Your task to perform on an android device: change the upload size in google photos Image 0: 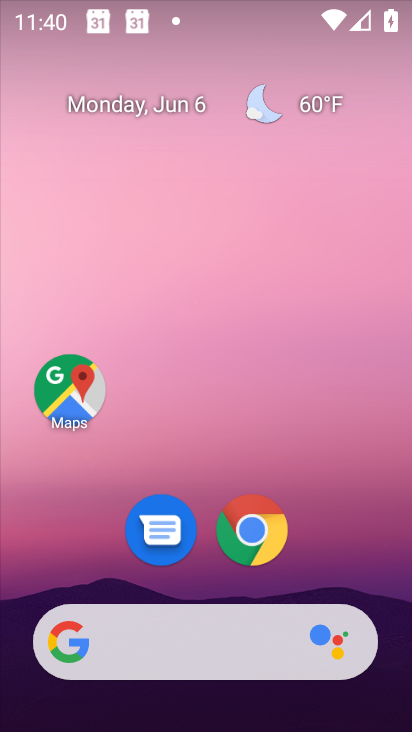
Step 0: drag from (340, 544) to (155, 52)
Your task to perform on an android device: change the upload size in google photos Image 1: 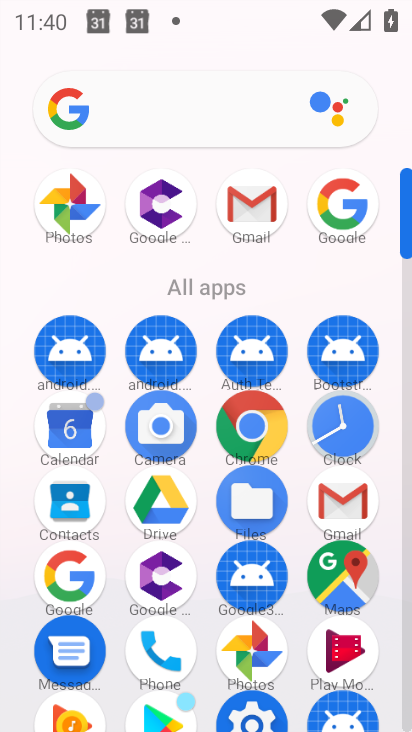
Step 1: click (77, 188)
Your task to perform on an android device: change the upload size in google photos Image 2: 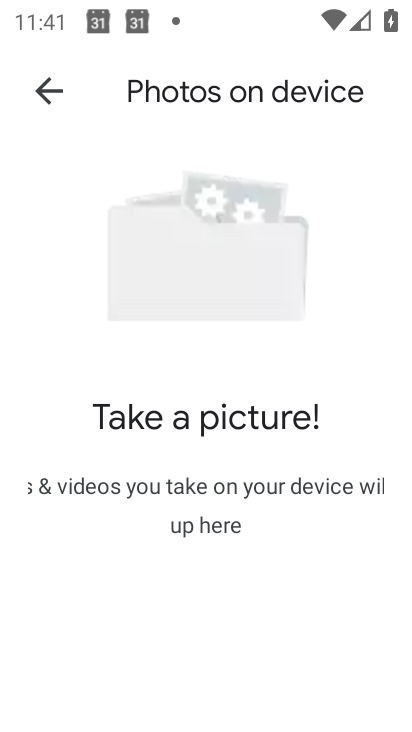
Step 2: click (40, 83)
Your task to perform on an android device: change the upload size in google photos Image 3: 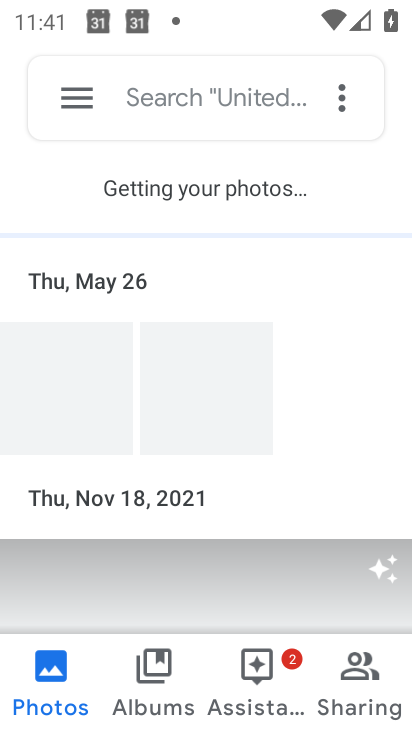
Step 3: click (74, 93)
Your task to perform on an android device: change the upload size in google photos Image 4: 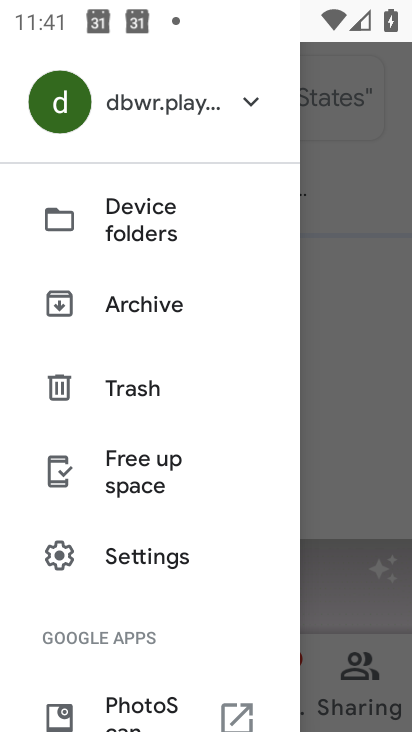
Step 4: drag from (224, 578) to (207, 533)
Your task to perform on an android device: change the upload size in google photos Image 5: 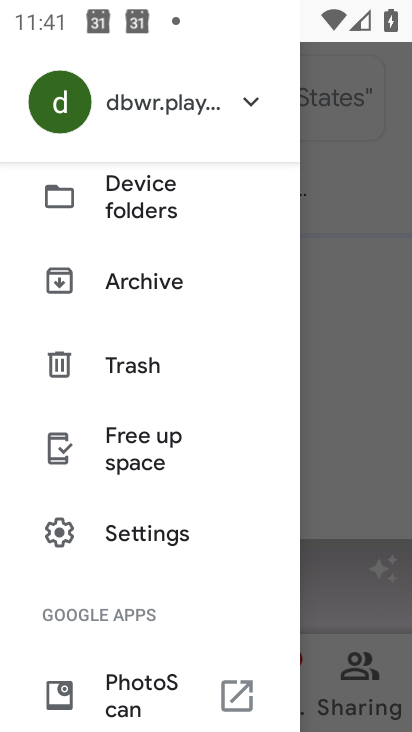
Step 5: click (200, 538)
Your task to perform on an android device: change the upload size in google photos Image 6: 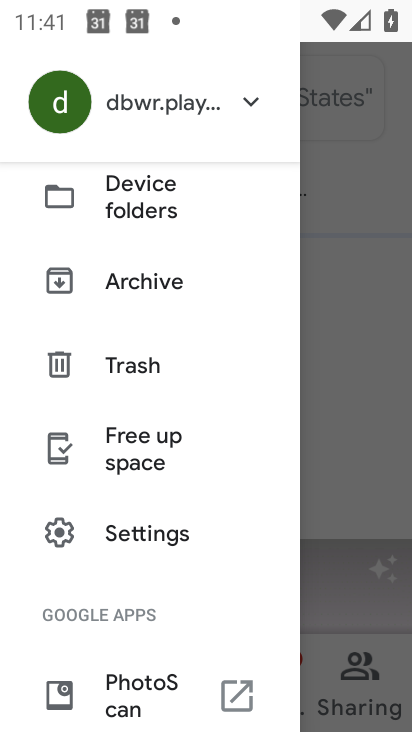
Step 6: click (177, 547)
Your task to perform on an android device: change the upload size in google photos Image 7: 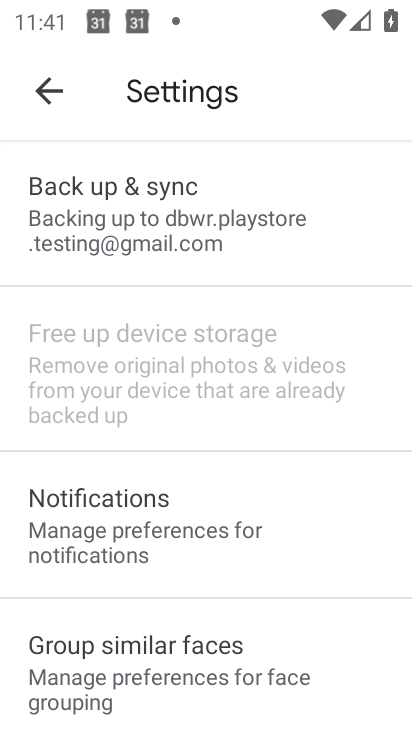
Step 7: click (159, 192)
Your task to perform on an android device: change the upload size in google photos Image 8: 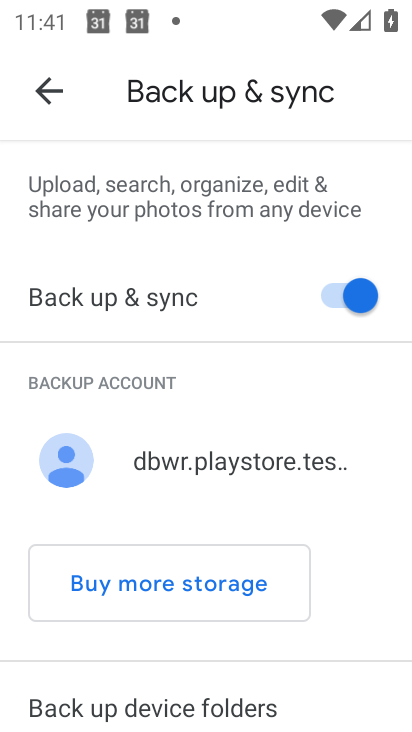
Step 8: drag from (168, 542) to (173, 400)
Your task to perform on an android device: change the upload size in google photos Image 9: 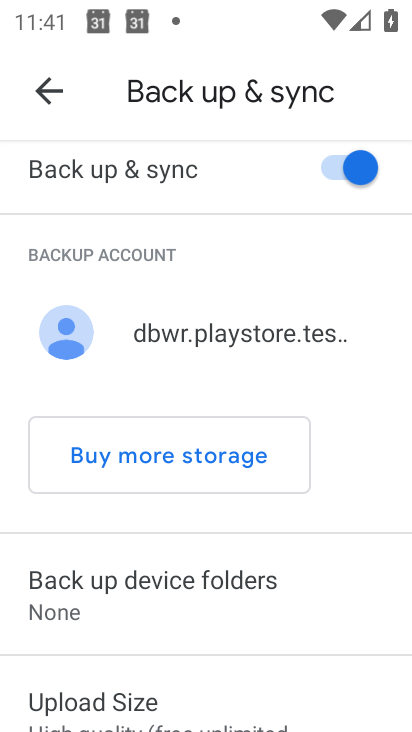
Step 9: drag from (179, 608) to (219, 350)
Your task to perform on an android device: change the upload size in google photos Image 10: 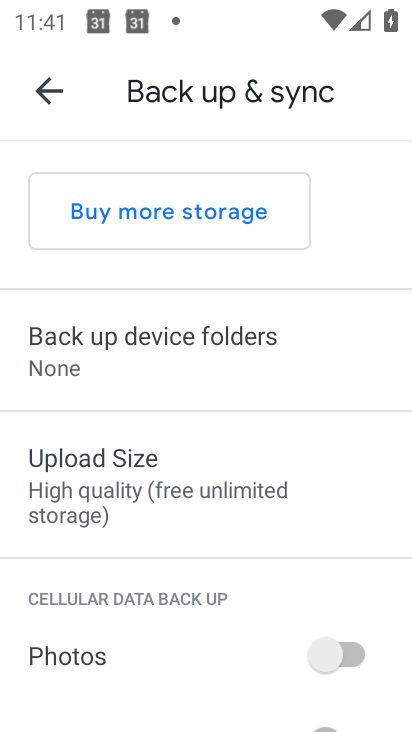
Step 10: click (181, 487)
Your task to perform on an android device: change the upload size in google photos Image 11: 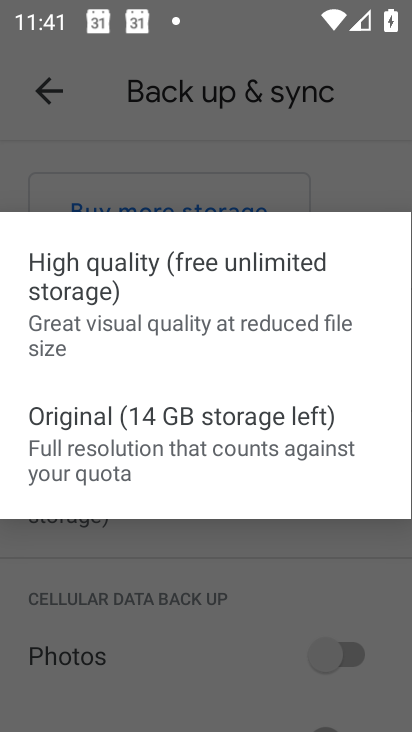
Step 11: click (101, 434)
Your task to perform on an android device: change the upload size in google photos Image 12: 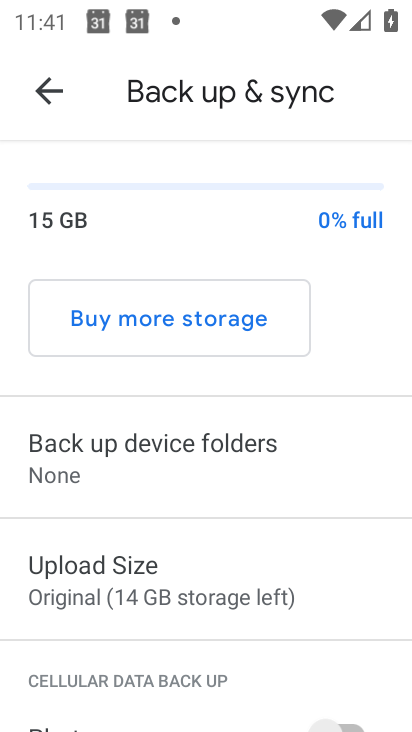
Step 12: task complete